Your task to perform on an android device: Open Google Chrome and click the shortcut for Amazon.com Image 0: 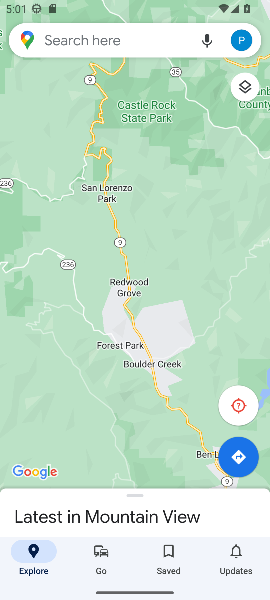
Step 0: press home button
Your task to perform on an android device: Open Google Chrome and click the shortcut for Amazon.com Image 1: 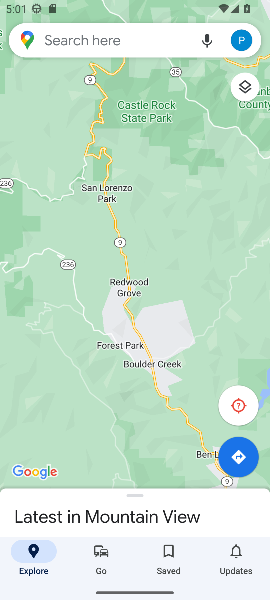
Step 1: press home button
Your task to perform on an android device: Open Google Chrome and click the shortcut for Amazon.com Image 2: 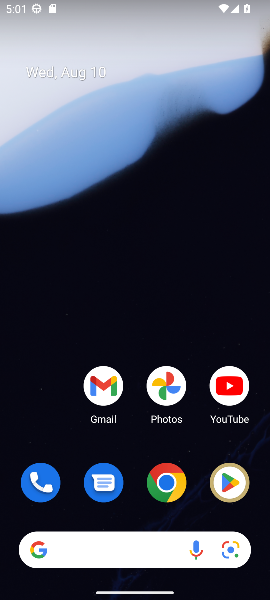
Step 2: click (165, 484)
Your task to perform on an android device: Open Google Chrome and click the shortcut for Amazon.com Image 3: 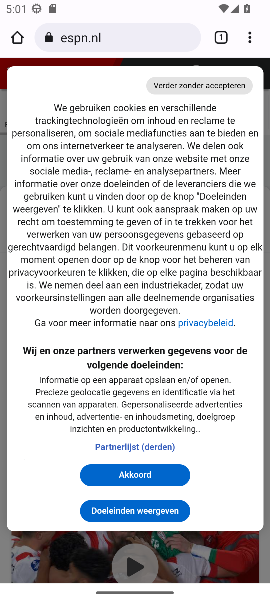
Step 3: press back button
Your task to perform on an android device: Open Google Chrome and click the shortcut for Amazon.com Image 4: 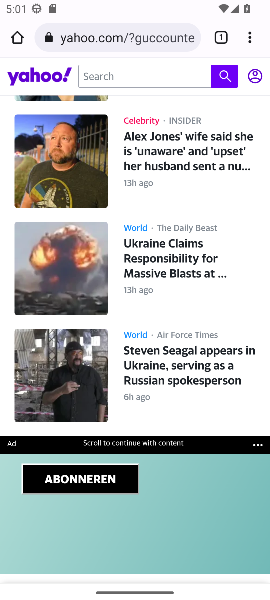
Step 4: press back button
Your task to perform on an android device: Open Google Chrome and click the shortcut for Amazon.com Image 5: 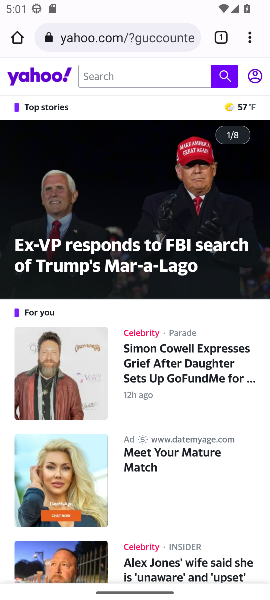
Step 5: click (250, 38)
Your task to perform on an android device: Open Google Chrome and click the shortcut for Amazon.com Image 6: 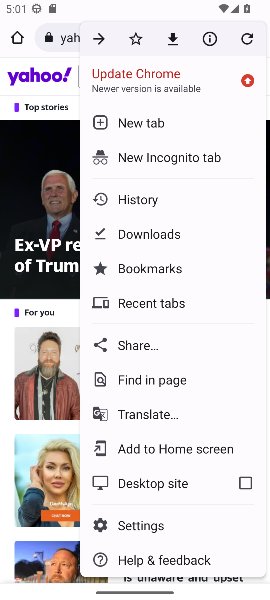
Step 6: click (175, 118)
Your task to perform on an android device: Open Google Chrome and click the shortcut for Amazon.com Image 7: 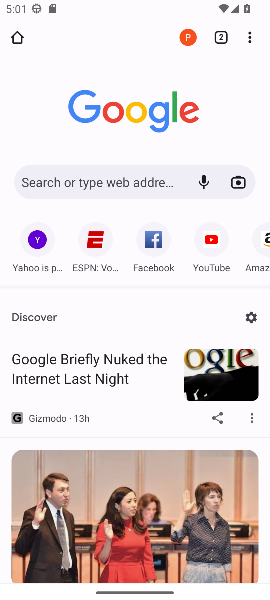
Step 7: click (255, 245)
Your task to perform on an android device: Open Google Chrome and click the shortcut for Amazon.com Image 8: 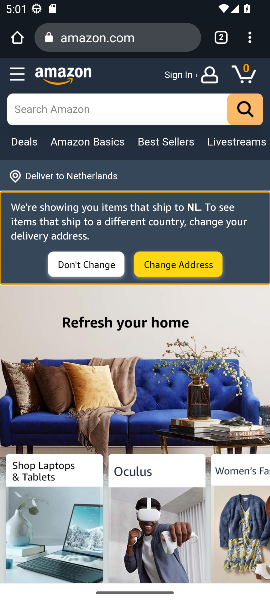
Step 8: task complete